Your task to perform on an android device: turn off data saver in the chrome app Image 0: 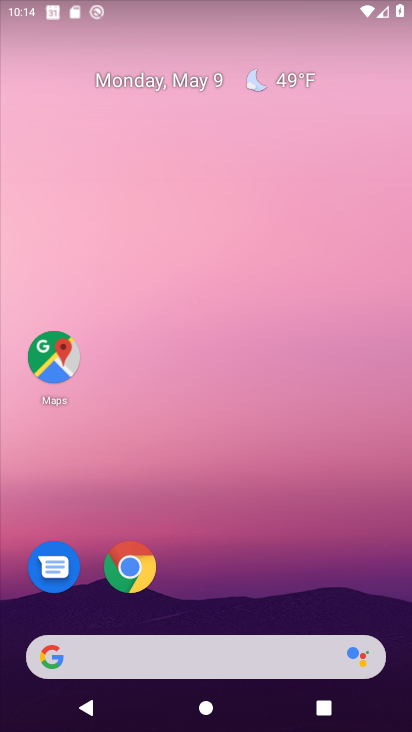
Step 0: click (137, 573)
Your task to perform on an android device: turn off data saver in the chrome app Image 1: 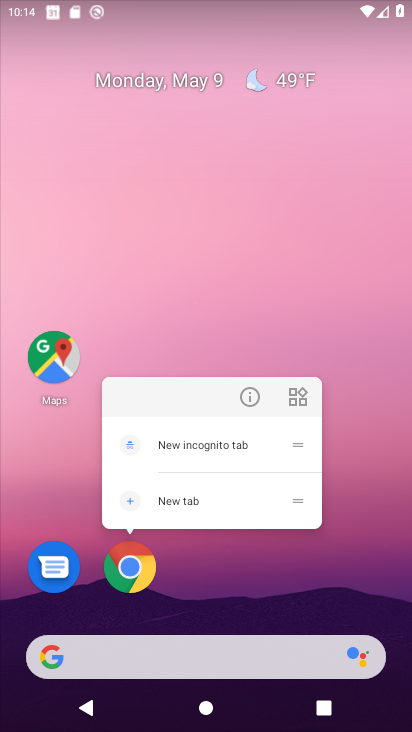
Step 1: click (137, 573)
Your task to perform on an android device: turn off data saver in the chrome app Image 2: 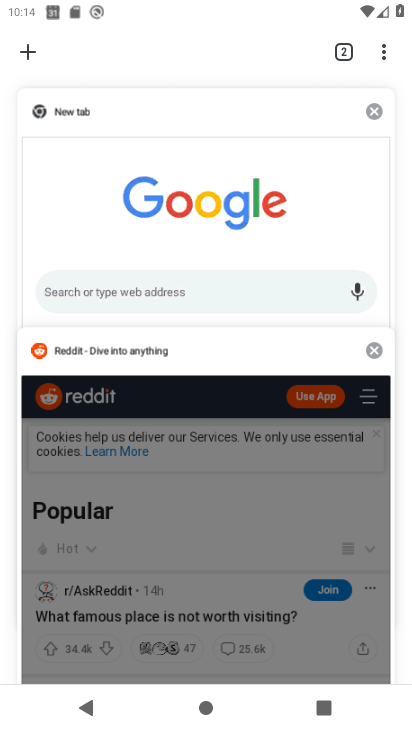
Step 2: click (383, 53)
Your task to perform on an android device: turn off data saver in the chrome app Image 3: 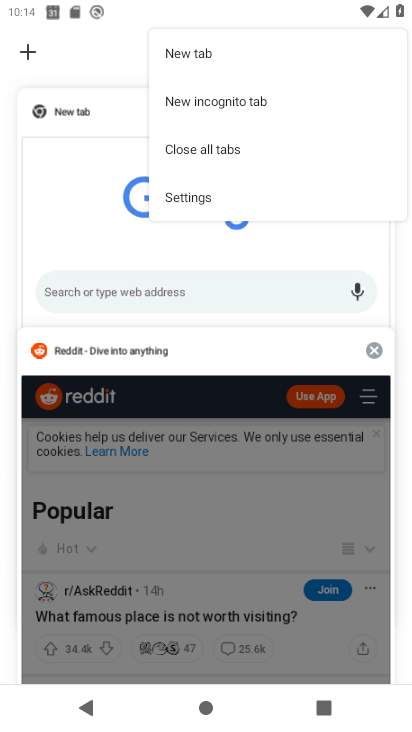
Step 3: click (191, 188)
Your task to perform on an android device: turn off data saver in the chrome app Image 4: 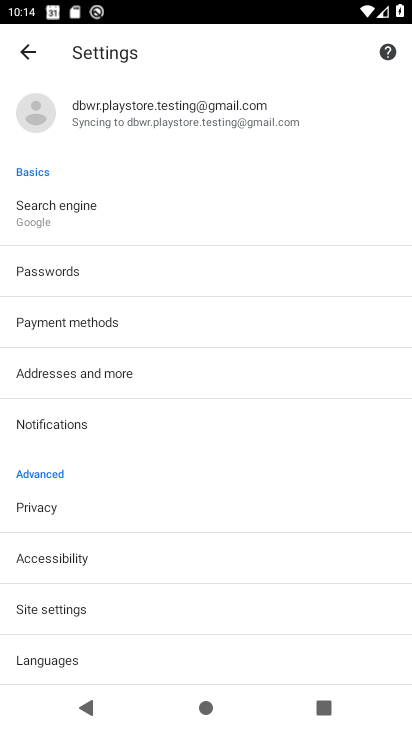
Step 4: drag from (94, 650) to (95, 338)
Your task to perform on an android device: turn off data saver in the chrome app Image 5: 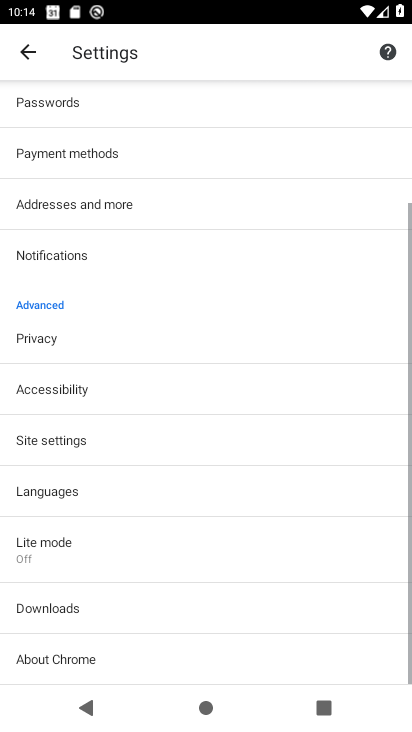
Step 5: click (36, 548)
Your task to perform on an android device: turn off data saver in the chrome app Image 6: 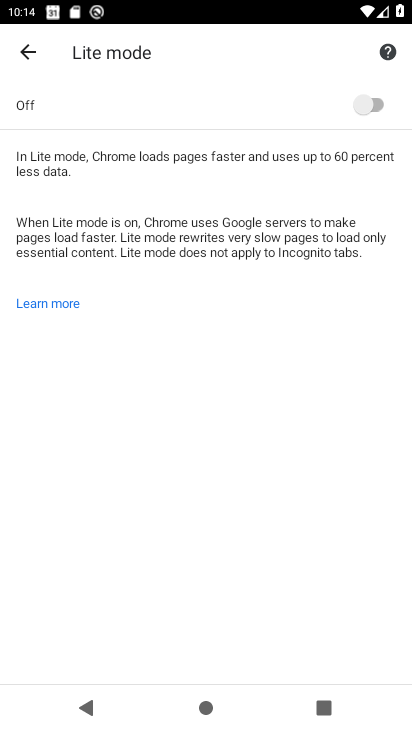
Step 6: task complete